Your task to perform on an android device: Open Youtube and go to "Your channel" Image 0: 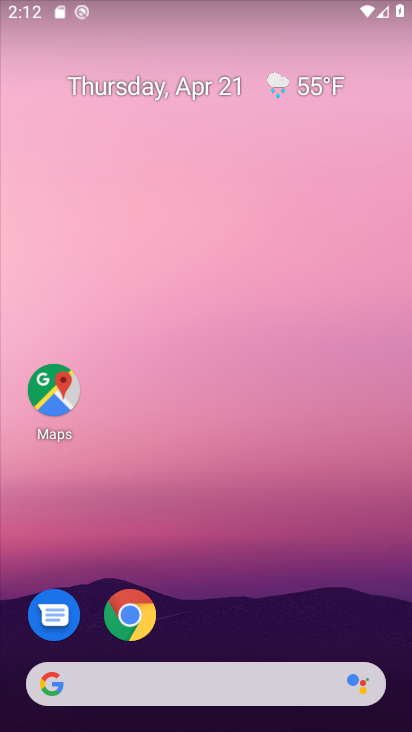
Step 0: drag from (200, 587) to (318, 125)
Your task to perform on an android device: Open Youtube and go to "Your channel" Image 1: 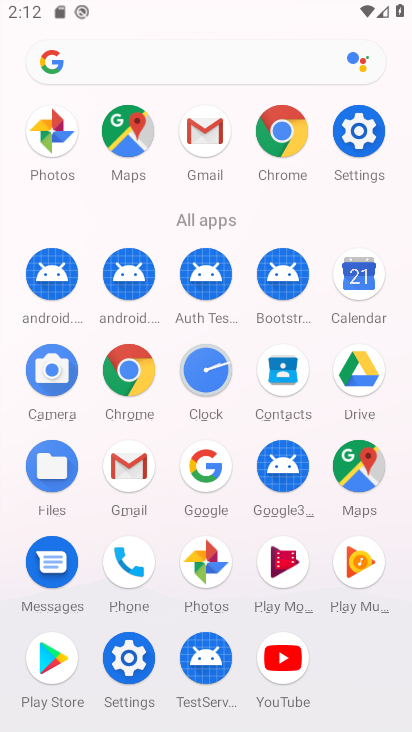
Step 1: click (295, 685)
Your task to perform on an android device: Open Youtube and go to "Your channel" Image 2: 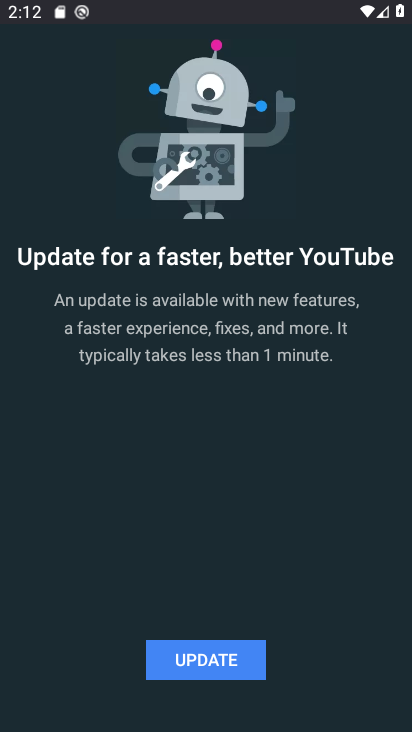
Step 2: click (215, 659)
Your task to perform on an android device: Open Youtube and go to "Your channel" Image 3: 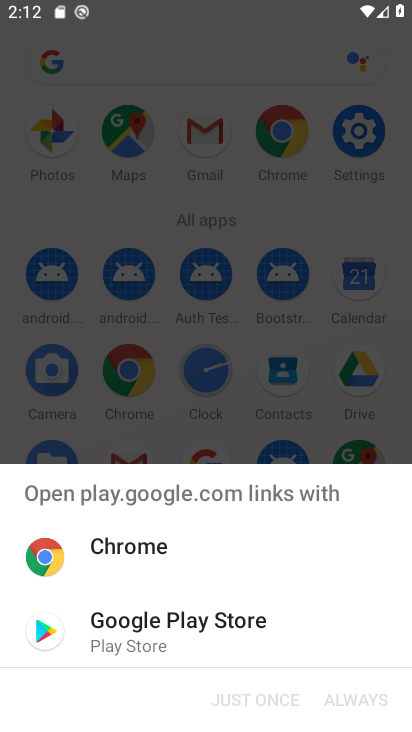
Step 3: click (147, 638)
Your task to perform on an android device: Open Youtube and go to "Your channel" Image 4: 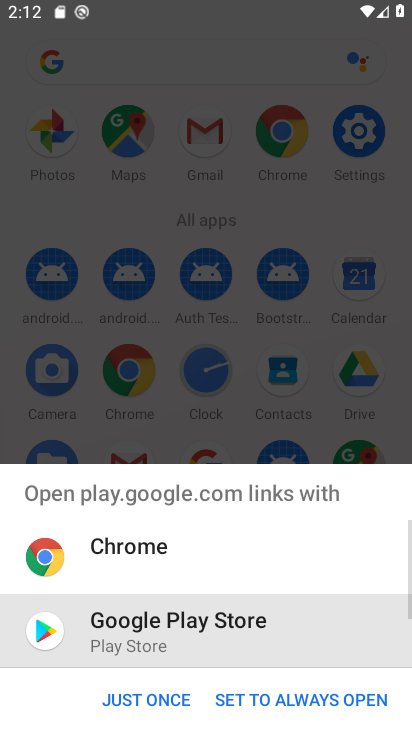
Step 4: click (169, 701)
Your task to perform on an android device: Open Youtube and go to "Your channel" Image 5: 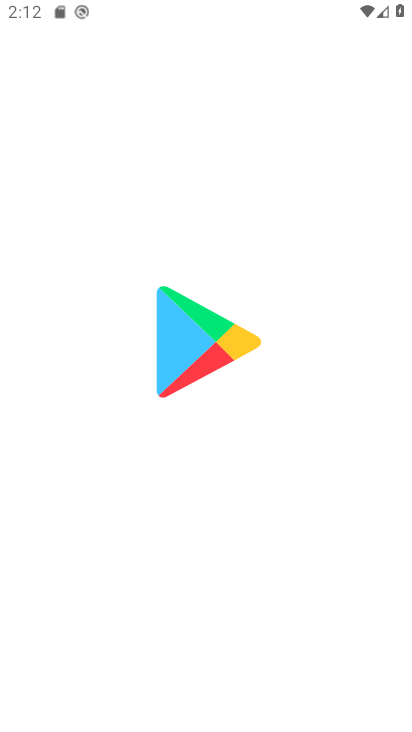
Step 5: click (248, 404)
Your task to perform on an android device: Open Youtube and go to "Your channel" Image 6: 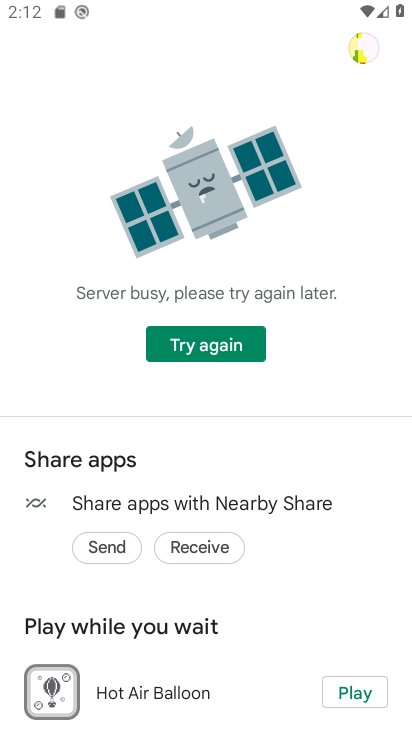
Step 6: click (214, 351)
Your task to perform on an android device: Open Youtube and go to "Your channel" Image 7: 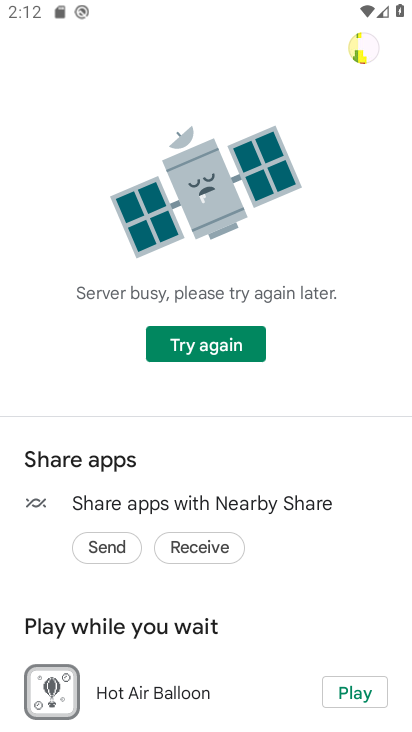
Step 7: click (208, 340)
Your task to perform on an android device: Open Youtube and go to "Your channel" Image 8: 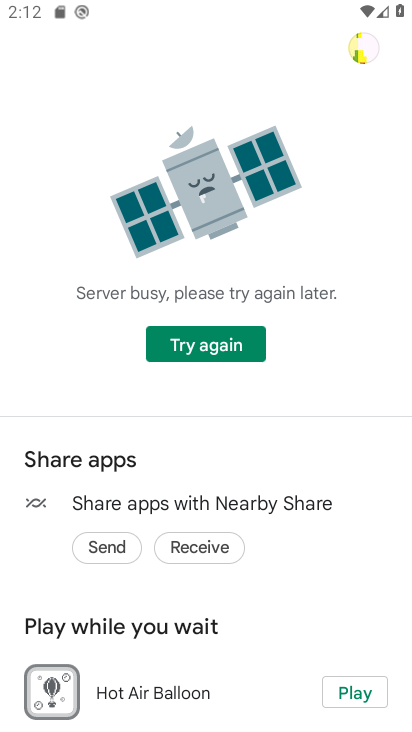
Step 8: task complete